Your task to perform on an android device: Open calendar and show me the second week of next month Image 0: 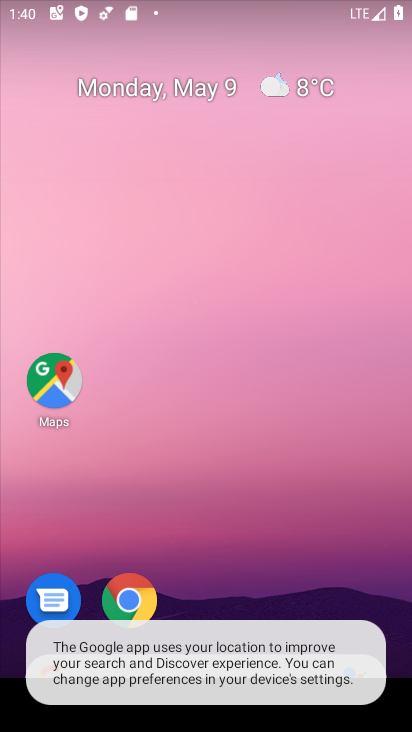
Step 0: drag from (190, 597) to (242, 153)
Your task to perform on an android device: Open calendar and show me the second week of next month Image 1: 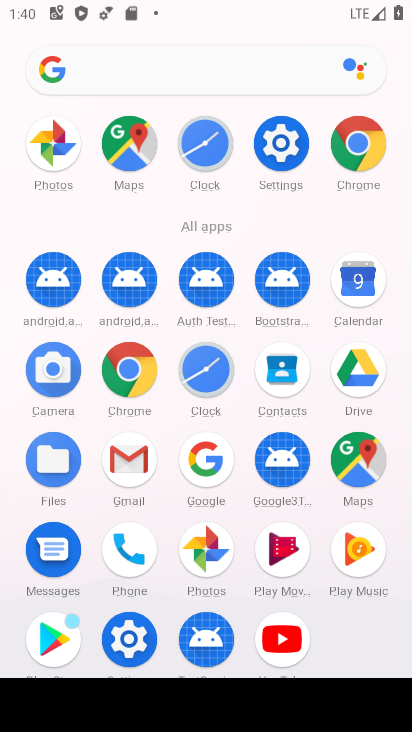
Step 1: click (355, 276)
Your task to perform on an android device: Open calendar and show me the second week of next month Image 2: 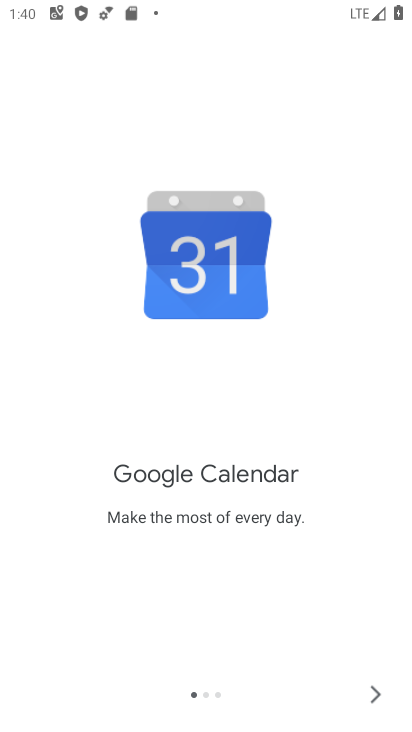
Step 2: click (361, 703)
Your task to perform on an android device: Open calendar and show me the second week of next month Image 3: 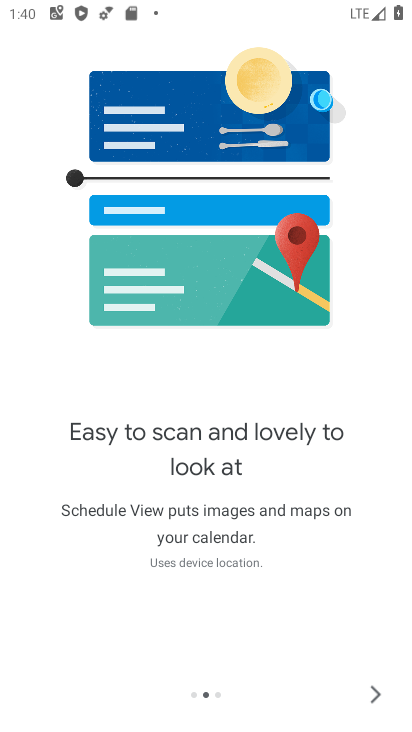
Step 3: click (362, 699)
Your task to perform on an android device: Open calendar and show me the second week of next month Image 4: 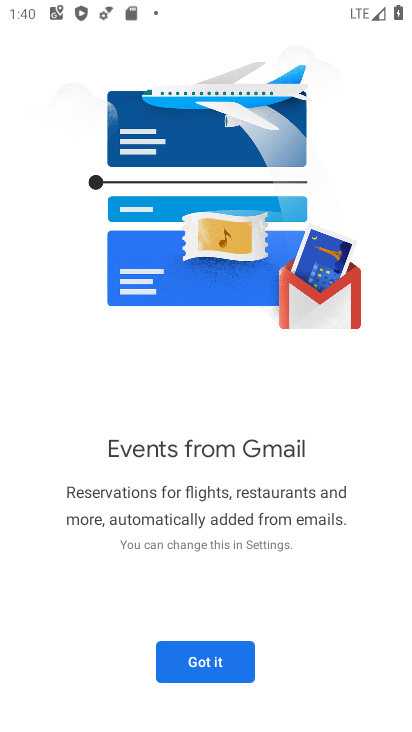
Step 4: click (203, 652)
Your task to perform on an android device: Open calendar and show me the second week of next month Image 5: 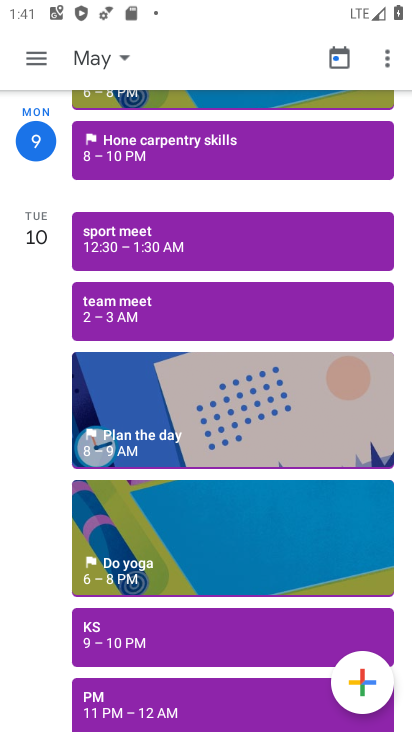
Step 5: click (32, 54)
Your task to perform on an android device: Open calendar and show me the second week of next month Image 6: 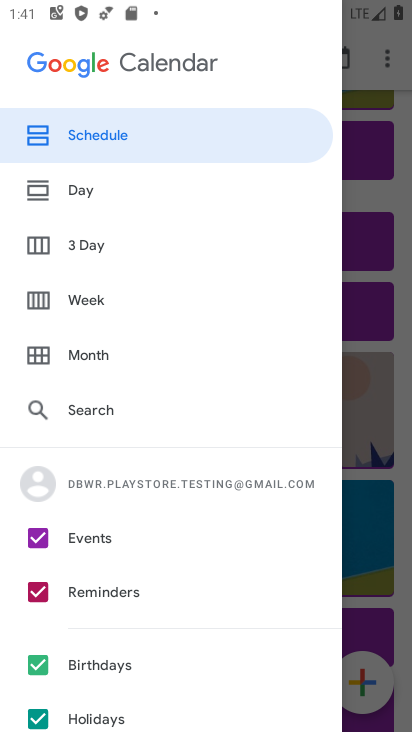
Step 6: click (88, 295)
Your task to perform on an android device: Open calendar and show me the second week of next month Image 7: 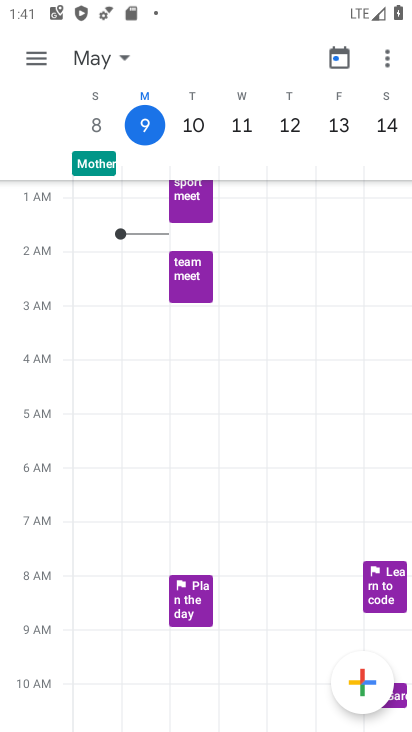
Step 7: drag from (384, 122) to (27, 128)
Your task to perform on an android device: Open calendar and show me the second week of next month Image 8: 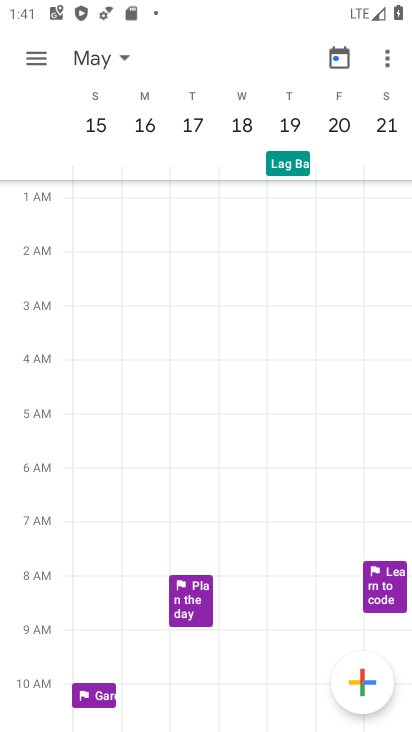
Step 8: drag from (388, 120) to (112, 144)
Your task to perform on an android device: Open calendar and show me the second week of next month Image 9: 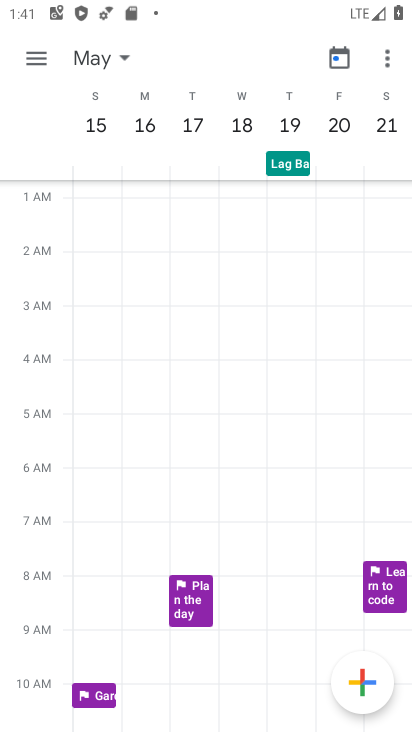
Step 9: drag from (390, 135) to (8, 143)
Your task to perform on an android device: Open calendar and show me the second week of next month Image 10: 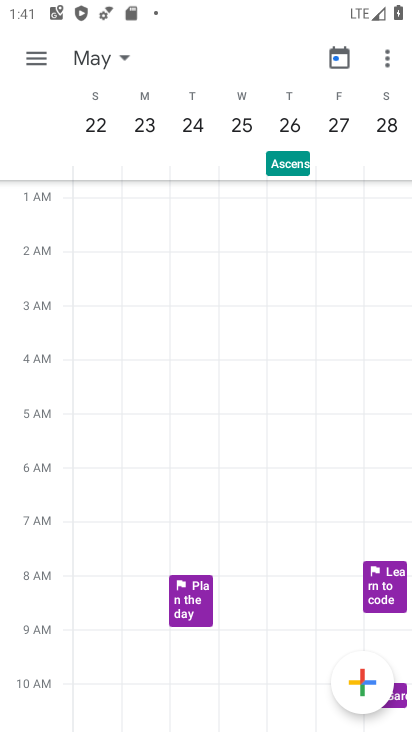
Step 10: drag from (392, 133) to (12, 153)
Your task to perform on an android device: Open calendar and show me the second week of next month Image 11: 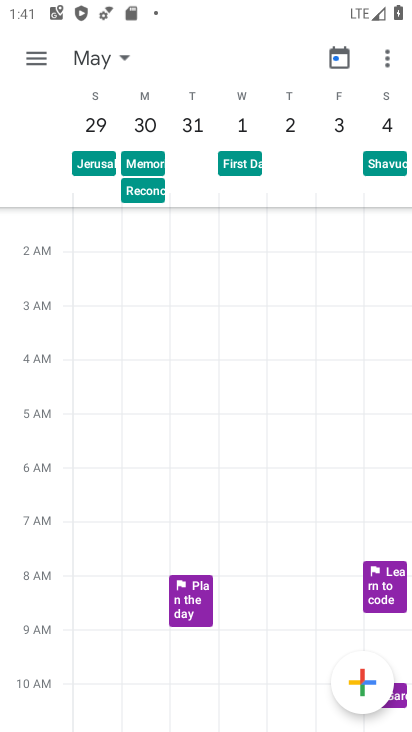
Step 11: drag from (391, 115) to (11, 126)
Your task to perform on an android device: Open calendar and show me the second week of next month Image 12: 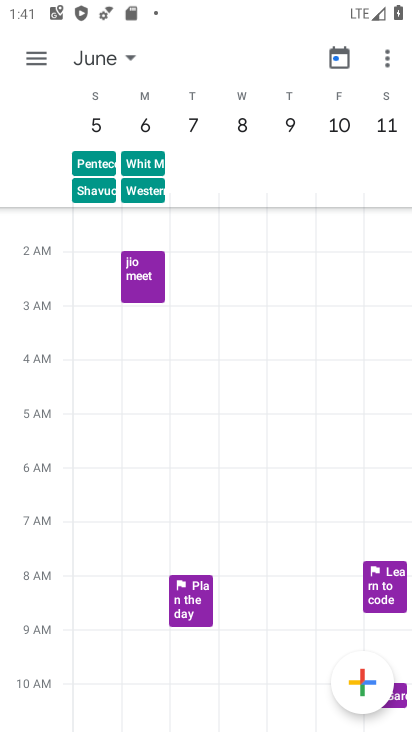
Step 12: drag from (377, 117) to (45, 129)
Your task to perform on an android device: Open calendar and show me the second week of next month Image 13: 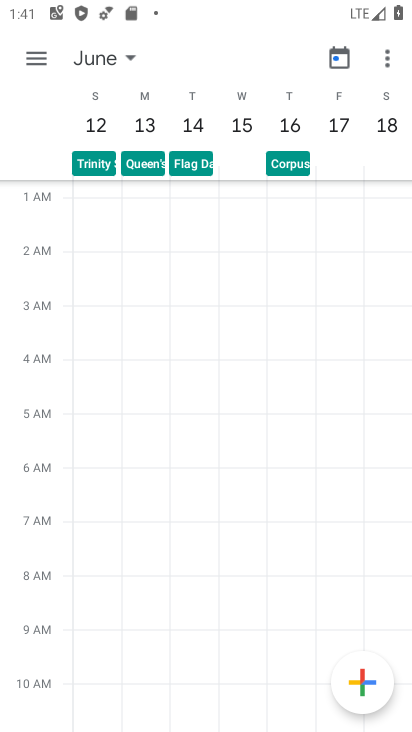
Step 13: click (92, 119)
Your task to perform on an android device: Open calendar and show me the second week of next month Image 14: 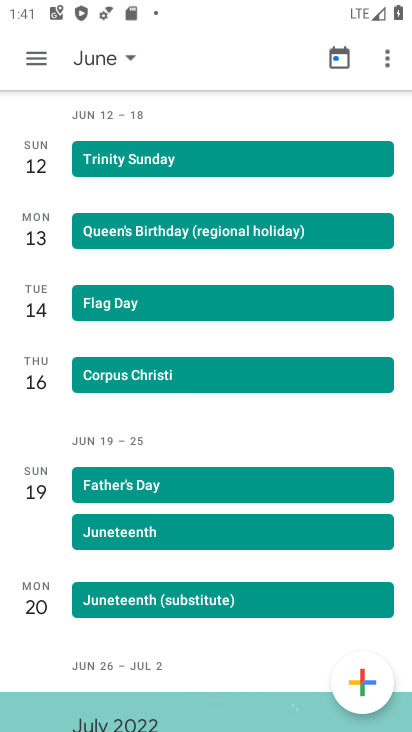
Step 14: task complete